Your task to perform on an android device: check storage Image 0: 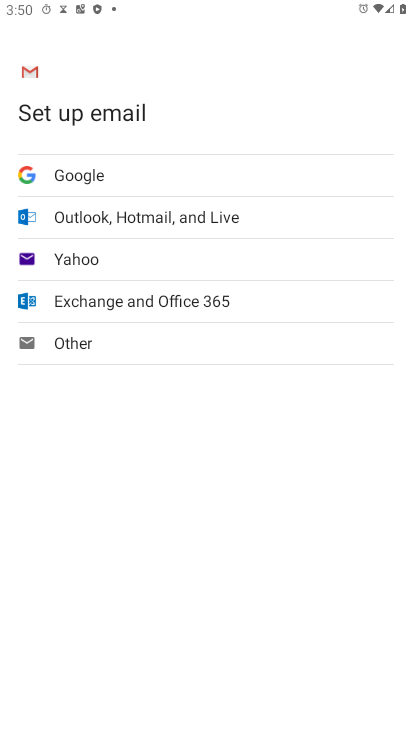
Step 0: press home button
Your task to perform on an android device: check storage Image 1: 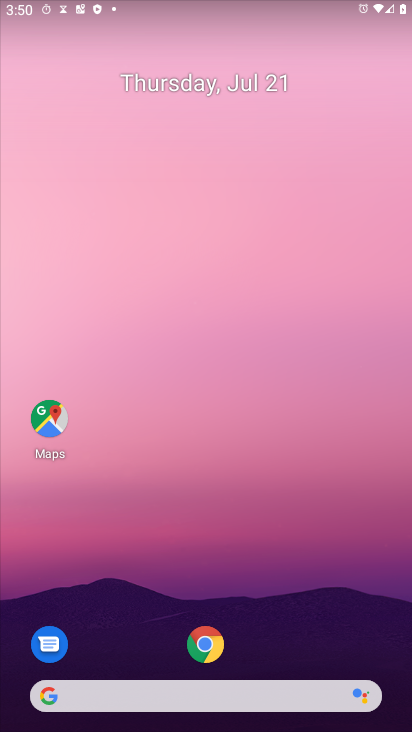
Step 1: press home button
Your task to perform on an android device: check storage Image 2: 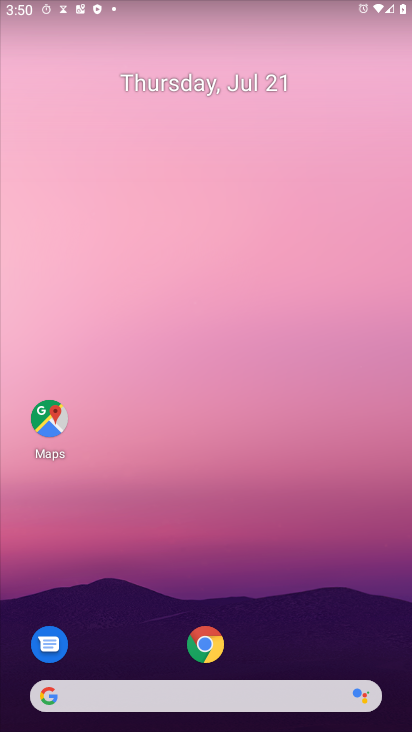
Step 2: drag from (299, 590) to (253, 71)
Your task to perform on an android device: check storage Image 3: 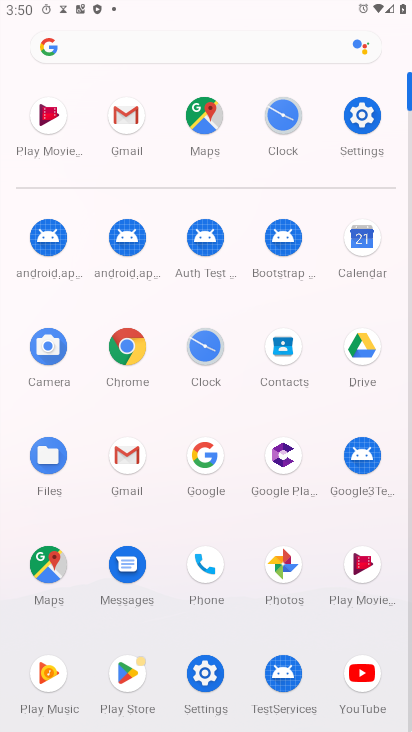
Step 3: click (360, 120)
Your task to perform on an android device: check storage Image 4: 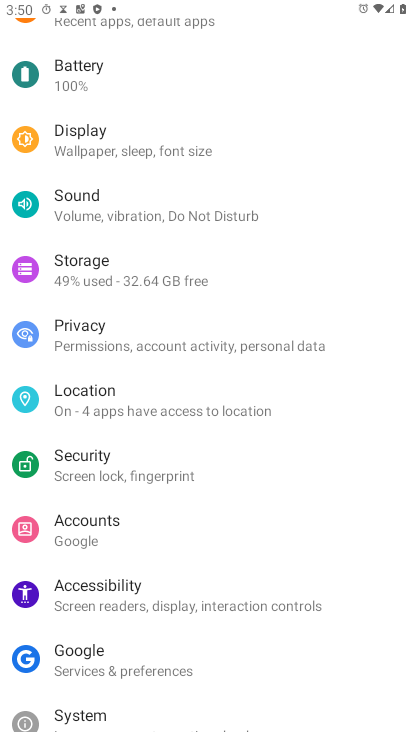
Step 4: click (110, 262)
Your task to perform on an android device: check storage Image 5: 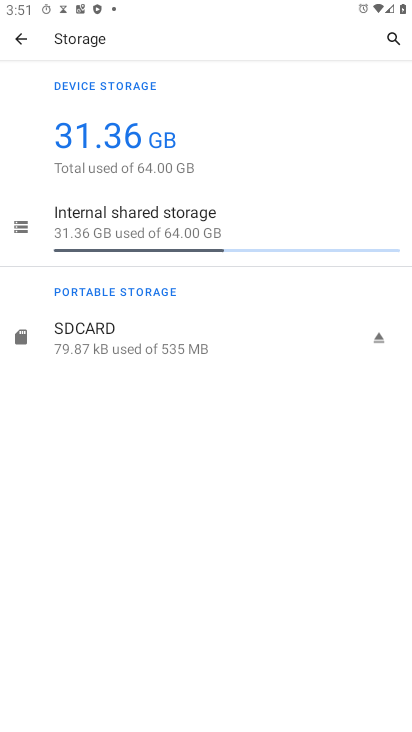
Step 5: task complete